Your task to perform on an android device: Turn on the flashlight Image 0: 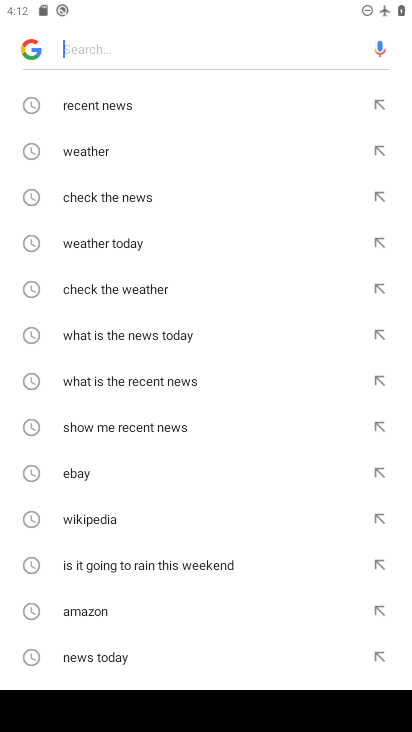
Step 0: press back button
Your task to perform on an android device: Turn on the flashlight Image 1: 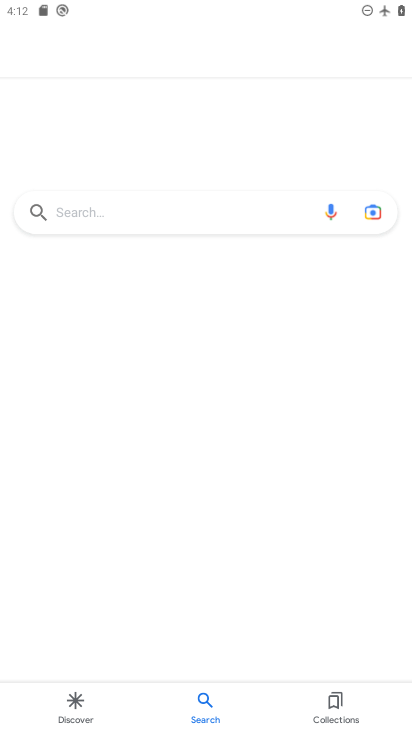
Step 1: press back button
Your task to perform on an android device: Turn on the flashlight Image 2: 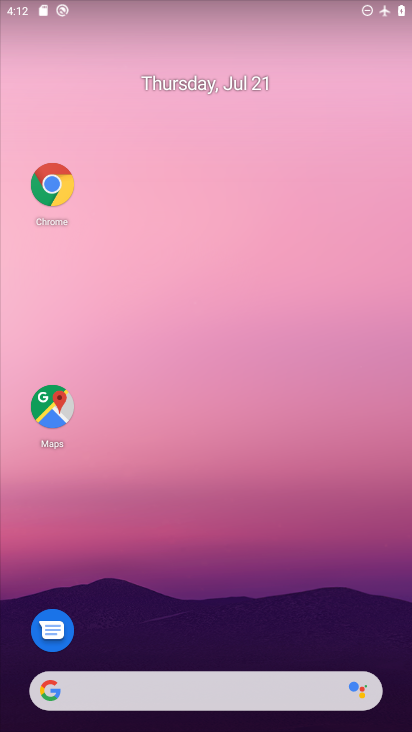
Step 2: drag from (217, 667) to (208, 76)
Your task to perform on an android device: Turn on the flashlight Image 3: 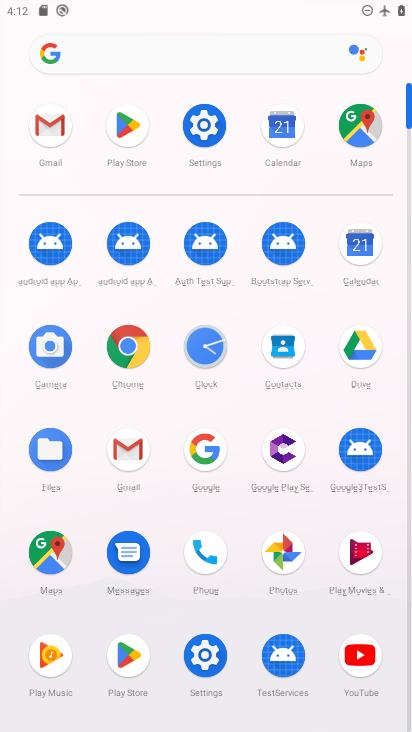
Step 3: click (201, 108)
Your task to perform on an android device: Turn on the flashlight Image 4: 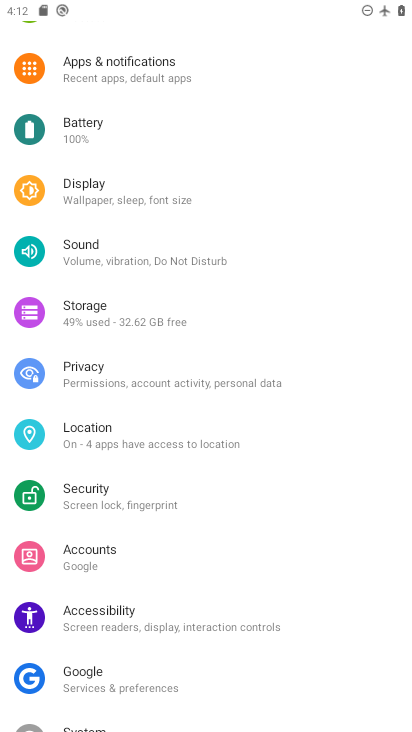
Step 4: task complete